Your task to perform on an android device: Open internet settings Image 0: 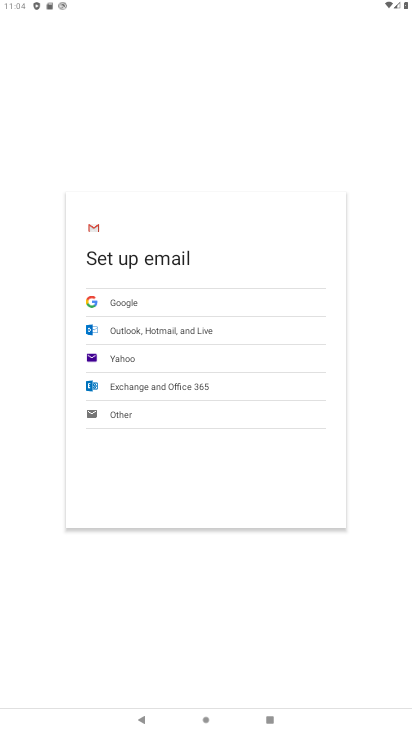
Step 0: press home button
Your task to perform on an android device: Open internet settings Image 1: 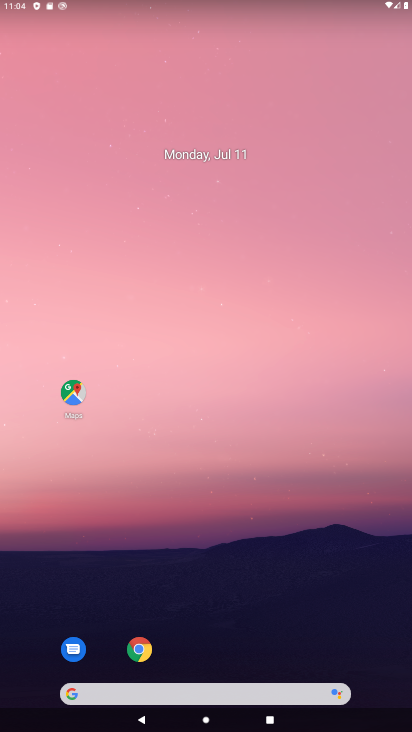
Step 1: drag from (183, 687) to (296, 195)
Your task to perform on an android device: Open internet settings Image 2: 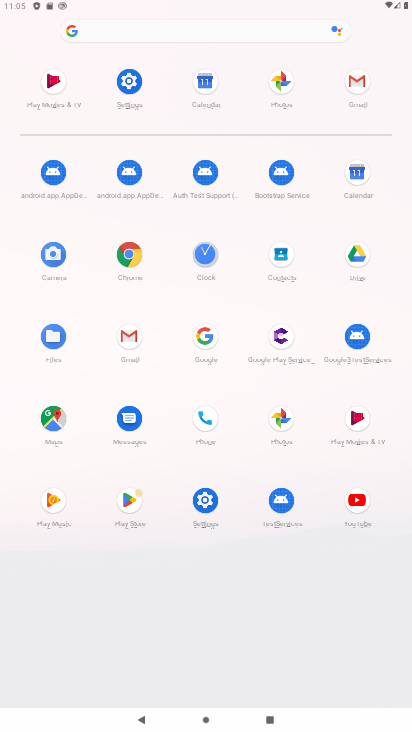
Step 2: click (129, 80)
Your task to perform on an android device: Open internet settings Image 3: 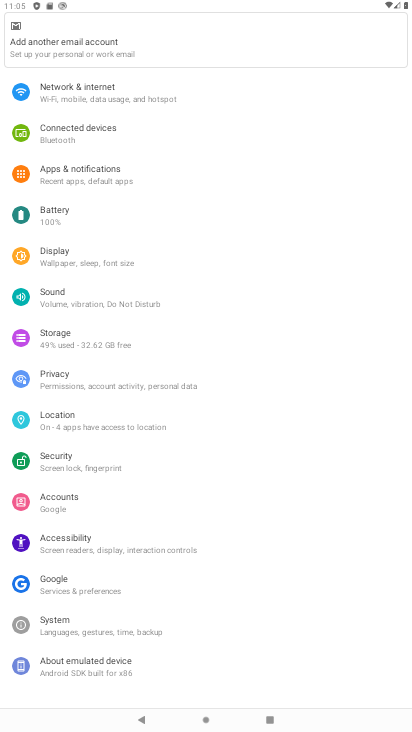
Step 3: click (101, 91)
Your task to perform on an android device: Open internet settings Image 4: 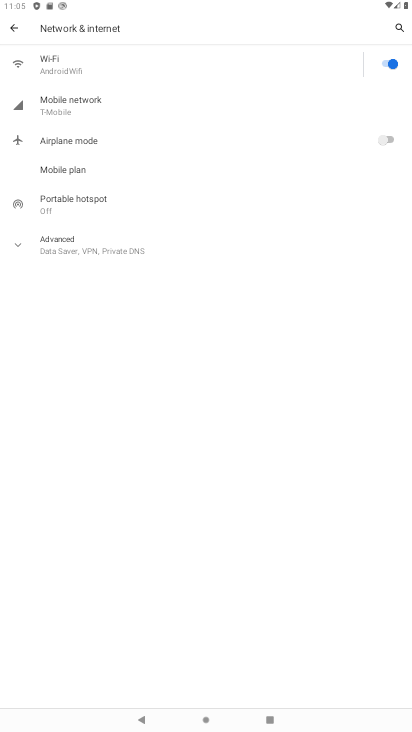
Step 4: task complete